Your task to perform on an android device: open app "ColorNote Notepad Notes" (install if not already installed) Image 0: 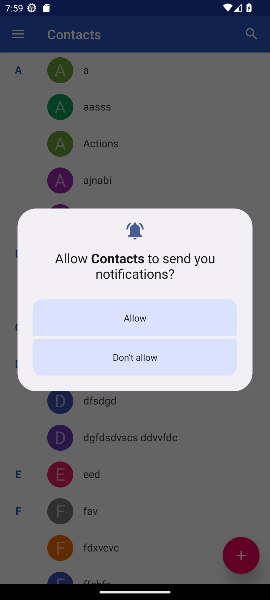
Step 0: press home button
Your task to perform on an android device: open app "ColorNote Notepad Notes" (install if not already installed) Image 1: 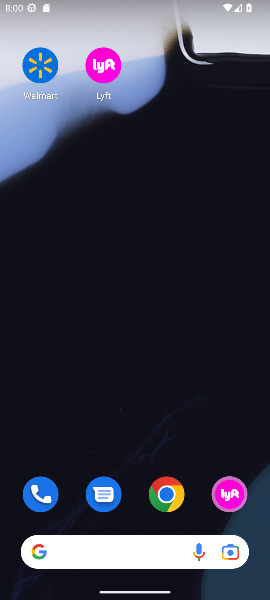
Step 1: drag from (202, 517) to (185, 145)
Your task to perform on an android device: open app "ColorNote Notepad Notes" (install if not already installed) Image 2: 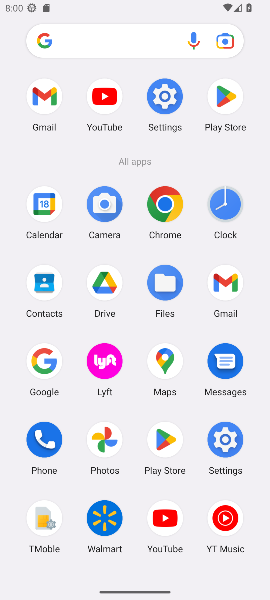
Step 2: click (166, 439)
Your task to perform on an android device: open app "ColorNote Notepad Notes" (install if not already installed) Image 3: 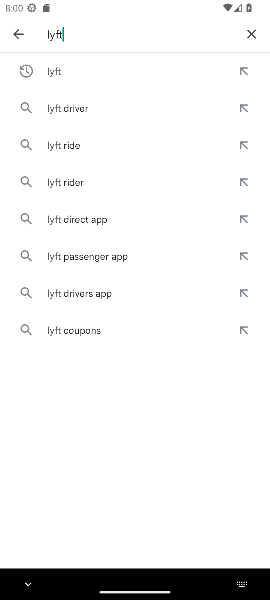
Step 3: click (248, 32)
Your task to perform on an android device: open app "ColorNote Notepad Notes" (install if not already installed) Image 4: 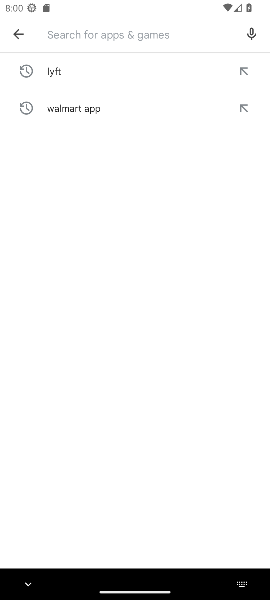
Step 4: type "Colornote notepad notes"
Your task to perform on an android device: open app "ColorNote Notepad Notes" (install if not already installed) Image 5: 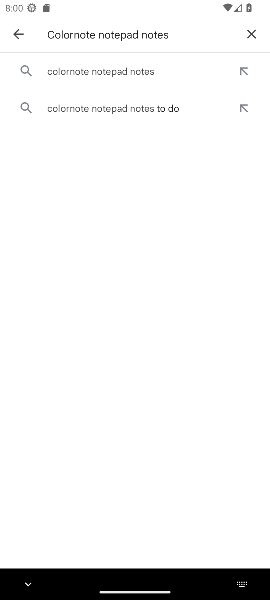
Step 5: click (76, 69)
Your task to perform on an android device: open app "ColorNote Notepad Notes" (install if not already installed) Image 6: 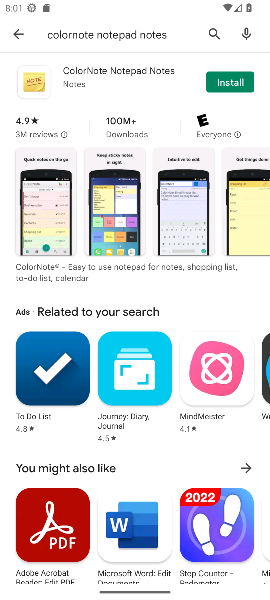
Step 6: click (227, 77)
Your task to perform on an android device: open app "ColorNote Notepad Notes" (install if not already installed) Image 7: 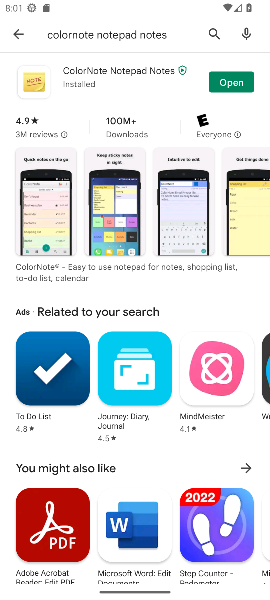
Step 7: click (233, 86)
Your task to perform on an android device: open app "ColorNote Notepad Notes" (install if not already installed) Image 8: 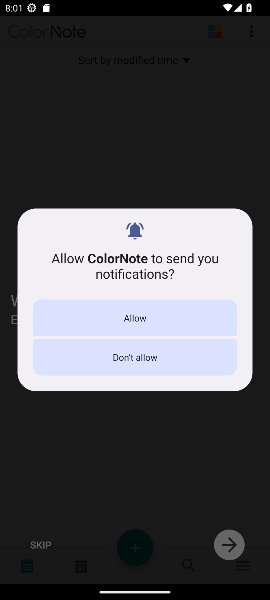
Step 8: click (123, 313)
Your task to perform on an android device: open app "ColorNote Notepad Notes" (install if not already installed) Image 9: 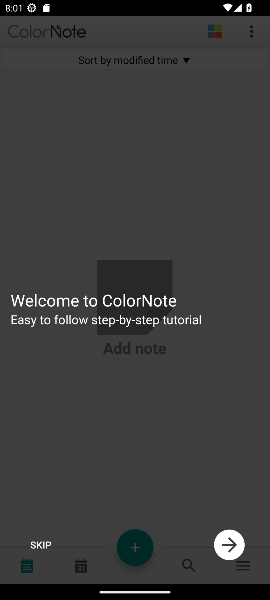
Step 9: task complete